Your task to perform on an android device: check google app version Image 0: 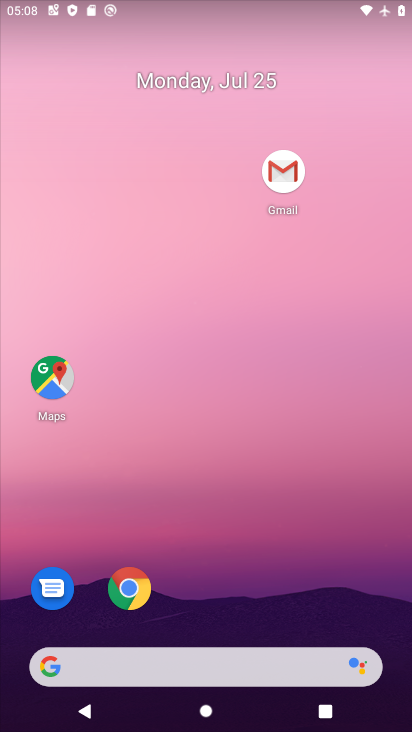
Step 0: drag from (272, 503) to (152, 143)
Your task to perform on an android device: check google app version Image 1: 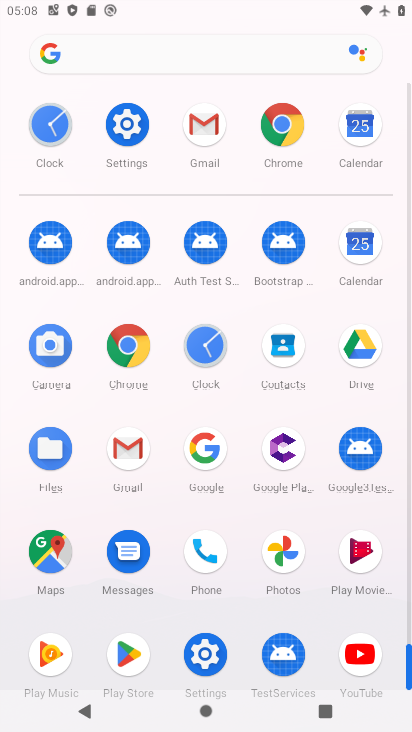
Step 1: click (211, 452)
Your task to perform on an android device: check google app version Image 2: 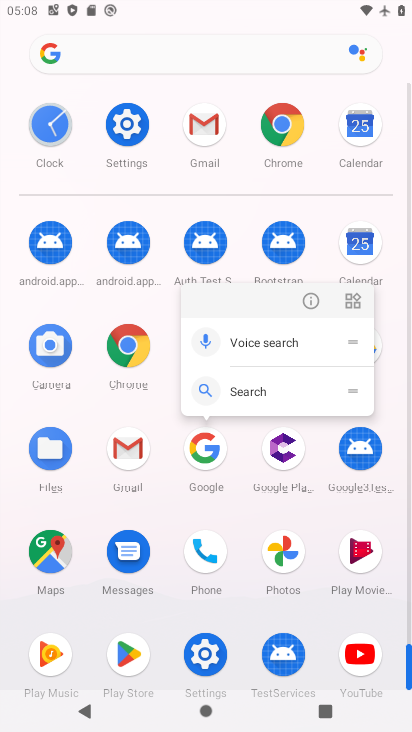
Step 2: click (304, 302)
Your task to perform on an android device: check google app version Image 3: 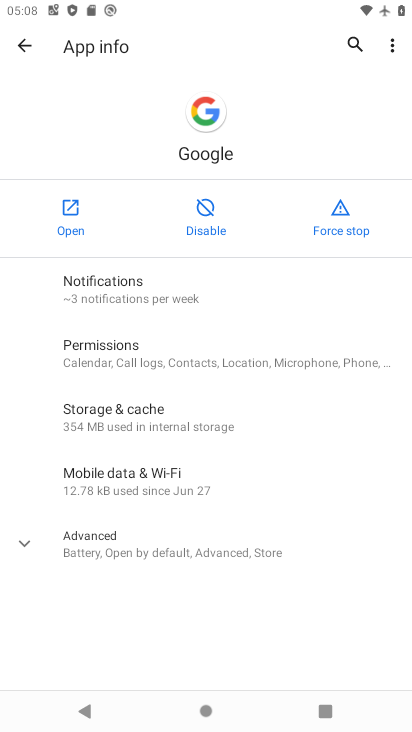
Step 3: click (198, 562)
Your task to perform on an android device: check google app version Image 4: 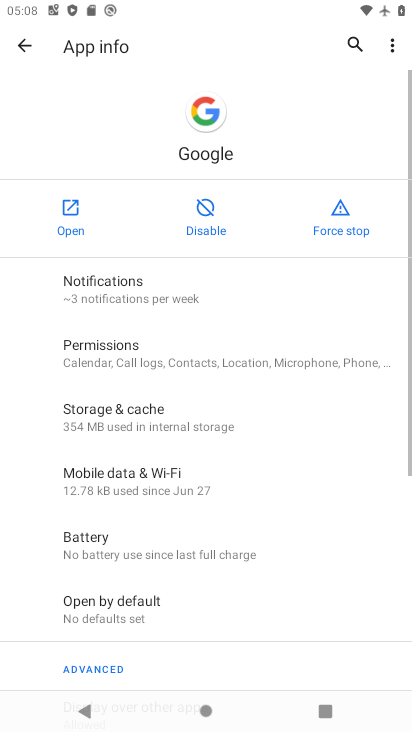
Step 4: task complete